Your task to perform on an android device: allow cookies in the chrome app Image 0: 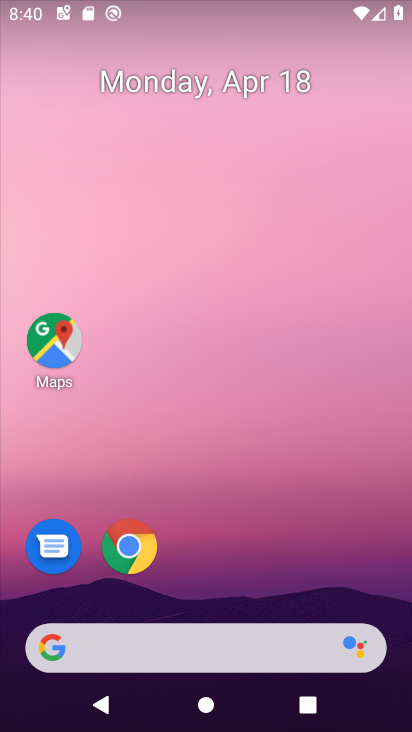
Step 0: drag from (372, 579) to (327, 152)
Your task to perform on an android device: allow cookies in the chrome app Image 1: 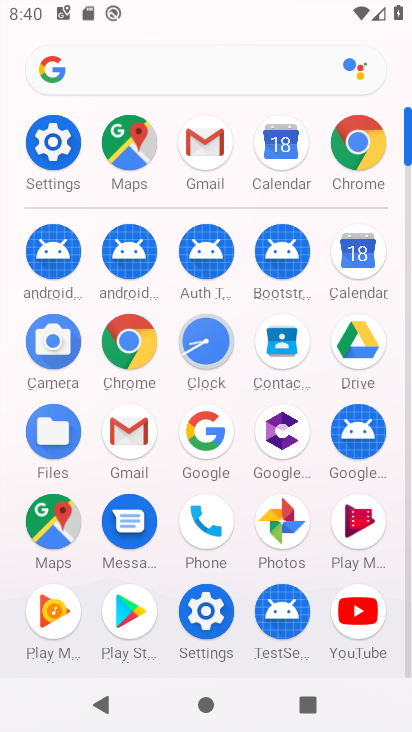
Step 1: click (348, 163)
Your task to perform on an android device: allow cookies in the chrome app Image 2: 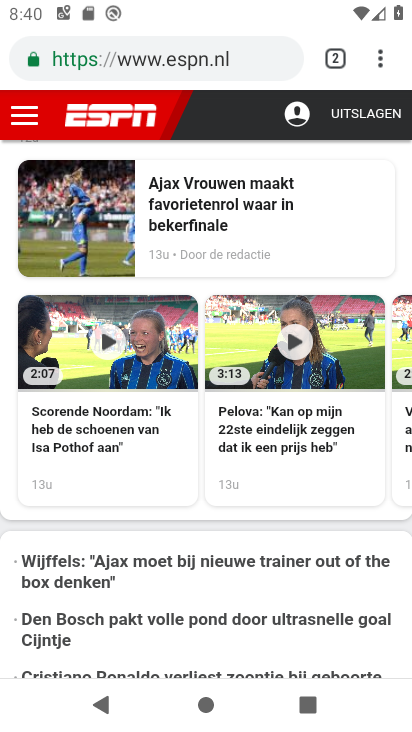
Step 2: click (384, 78)
Your task to perform on an android device: allow cookies in the chrome app Image 3: 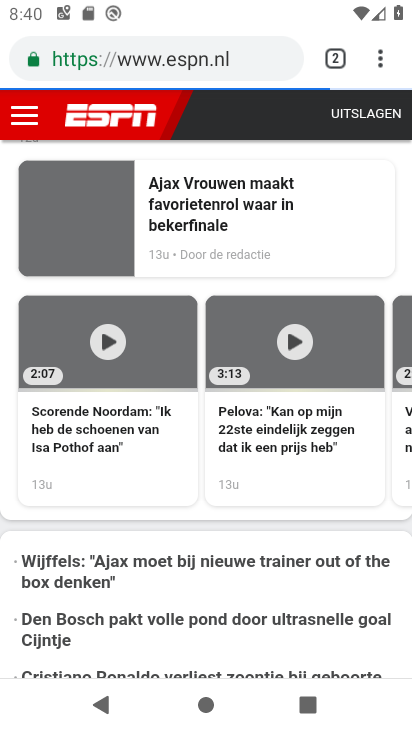
Step 3: drag from (377, 61) to (285, 577)
Your task to perform on an android device: allow cookies in the chrome app Image 4: 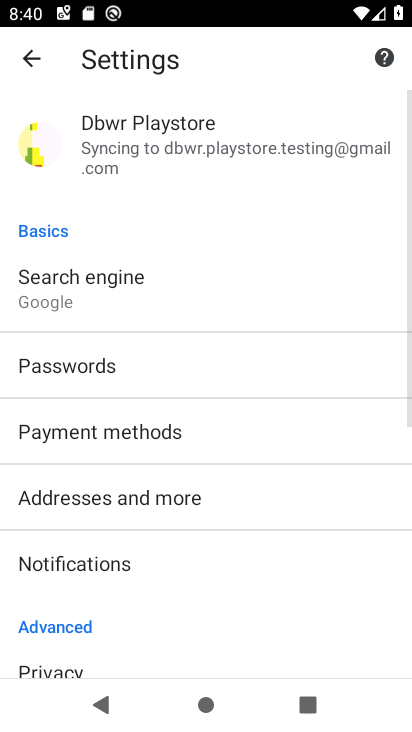
Step 4: drag from (284, 617) to (286, 265)
Your task to perform on an android device: allow cookies in the chrome app Image 5: 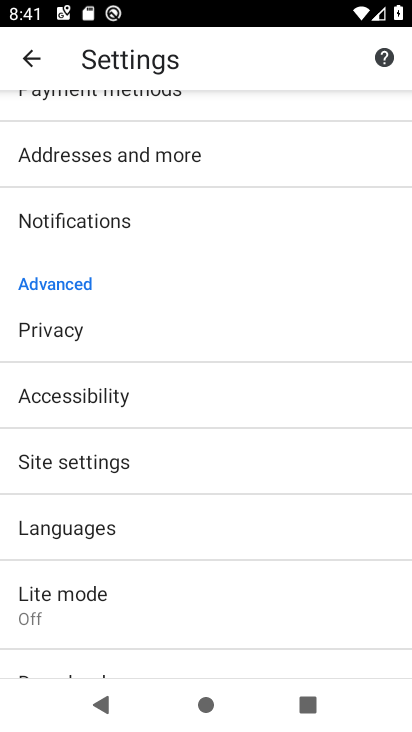
Step 5: click (213, 472)
Your task to perform on an android device: allow cookies in the chrome app Image 6: 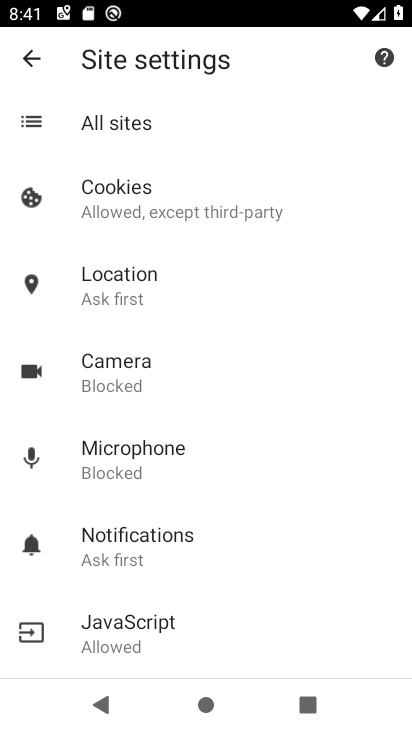
Step 6: click (274, 193)
Your task to perform on an android device: allow cookies in the chrome app Image 7: 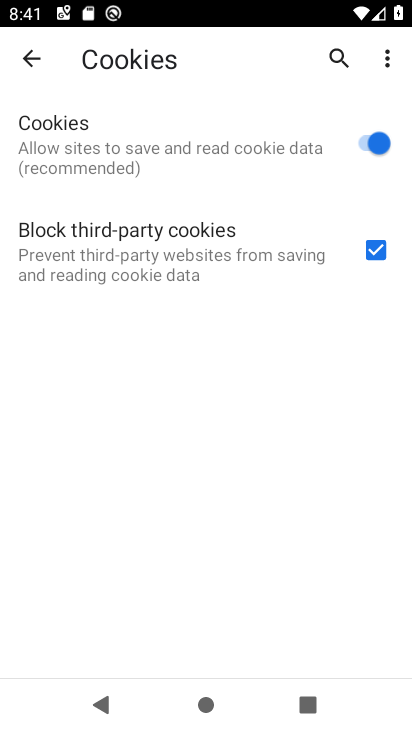
Step 7: task complete